Your task to perform on an android device: Open the map Image 0: 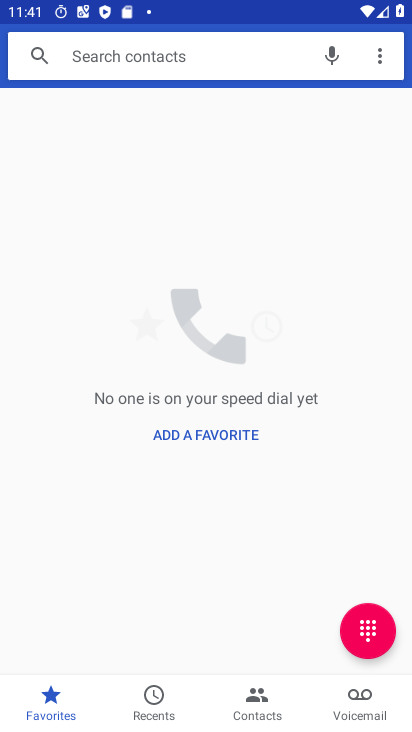
Step 0: press home button
Your task to perform on an android device: Open the map Image 1: 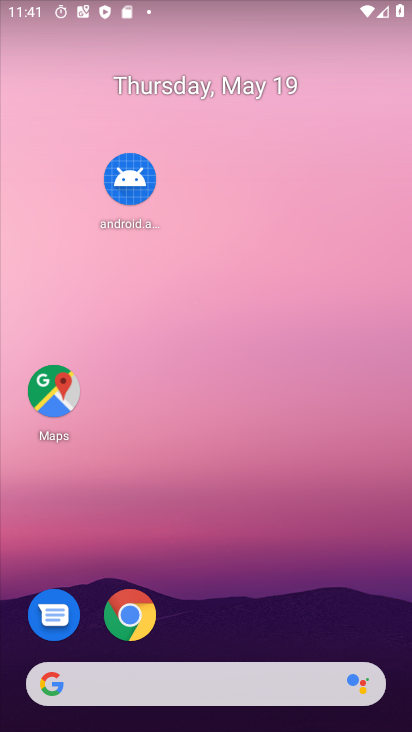
Step 1: click (34, 387)
Your task to perform on an android device: Open the map Image 2: 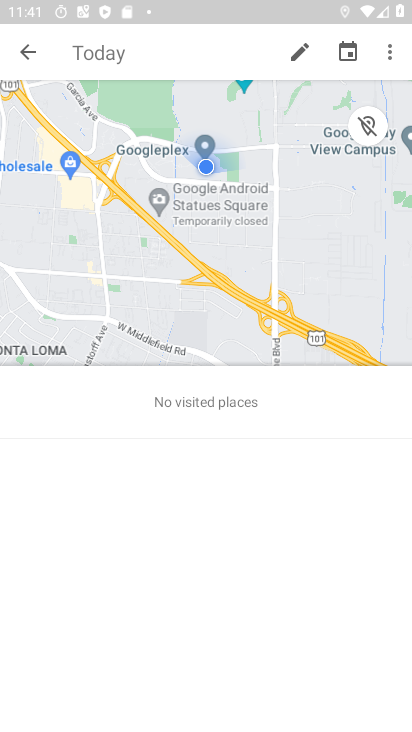
Step 2: task complete